Your task to perform on an android device: check android version Image 0: 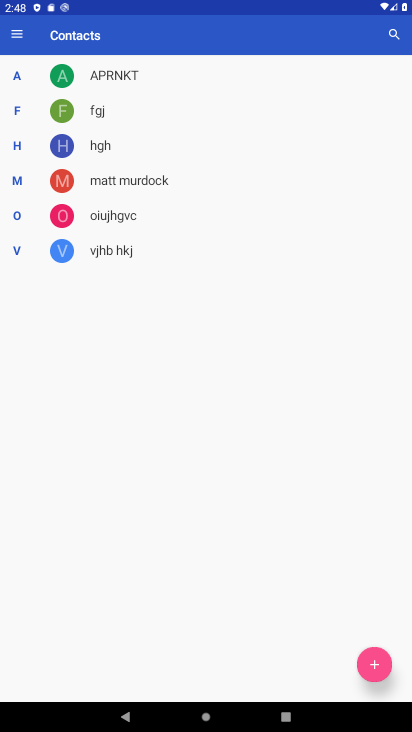
Step 0: press home button
Your task to perform on an android device: check android version Image 1: 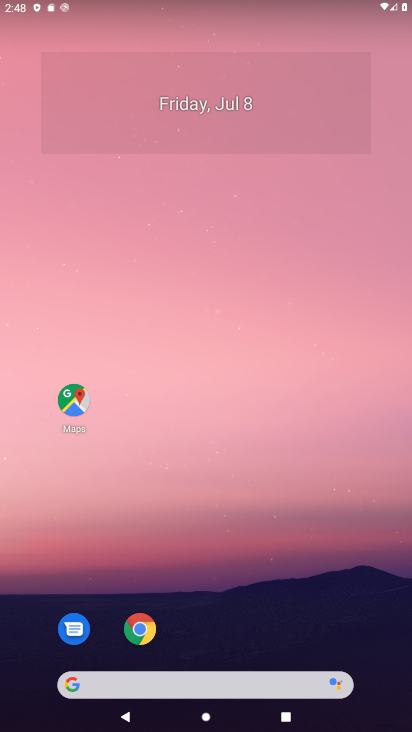
Step 1: drag from (7, 689) to (315, 78)
Your task to perform on an android device: check android version Image 2: 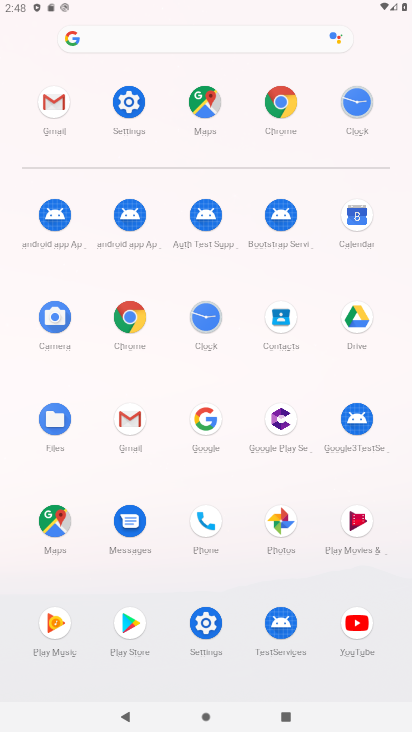
Step 2: click (187, 624)
Your task to perform on an android device: check android version Image 3: 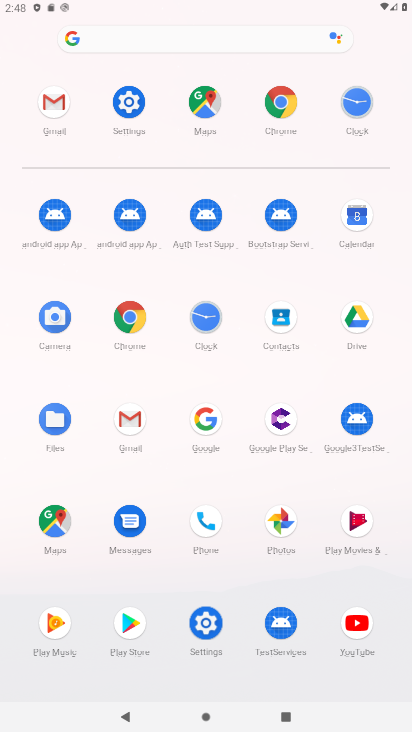
Step 3: click (188, 625)
Your task to perform on an android device: check android version Image 4: 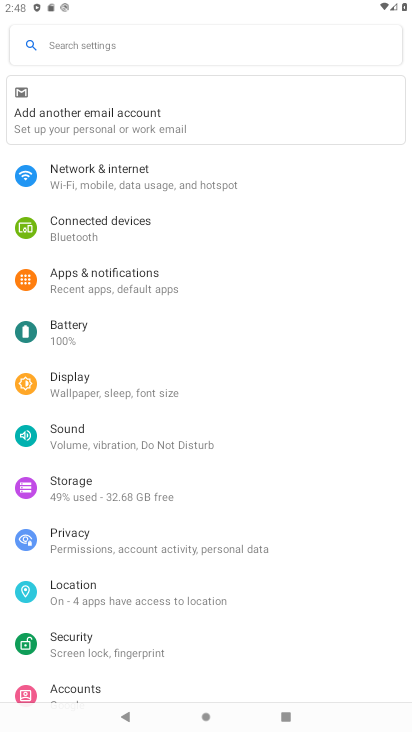
Step 4: drag from (161, 658) to (269, 73)
Your task to perform on an android device: check android version Image 5: 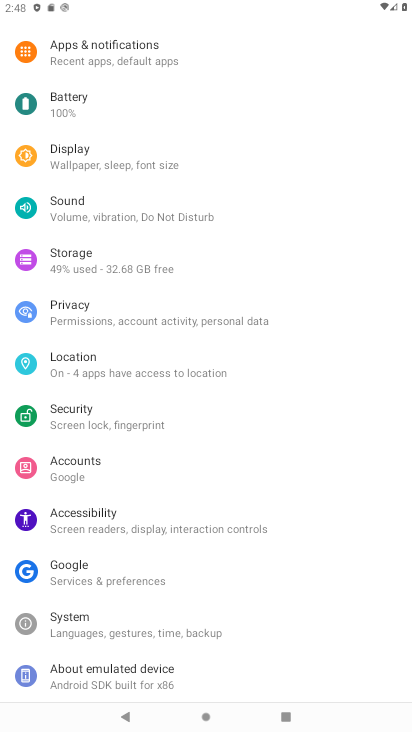
Step 5: click (95, 669)
Your task to perform on an android device: check android version Image 6: 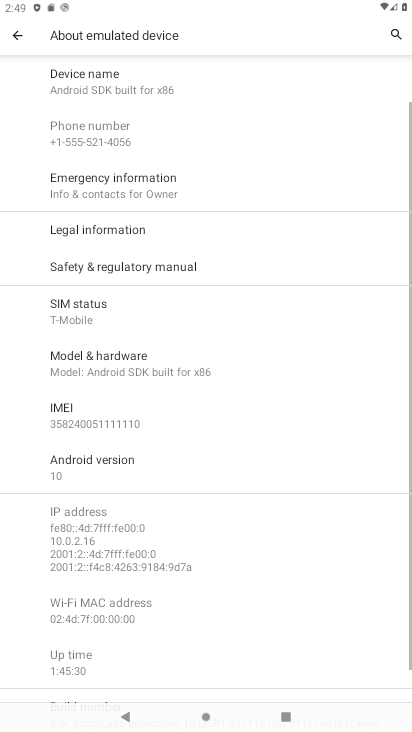
Step 6: task complete